Your task to perform on an android device: turn off priority inbox in the gmail app Image 0: 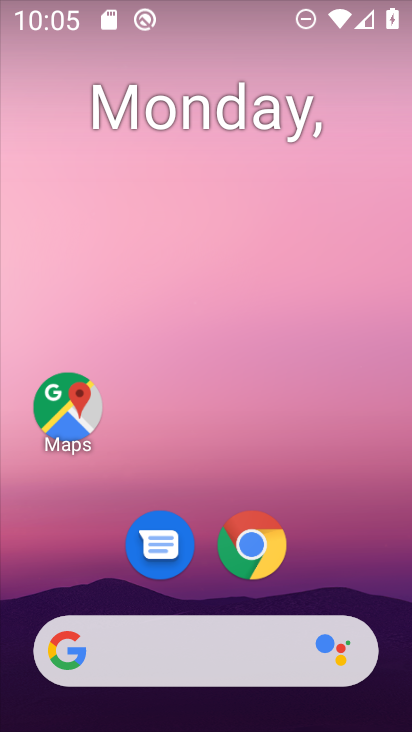
Step 0: drag from (6, 699) to (258, 253)
Your task to perform on an android device: turn off priority inbox in the gmail app Image 1: 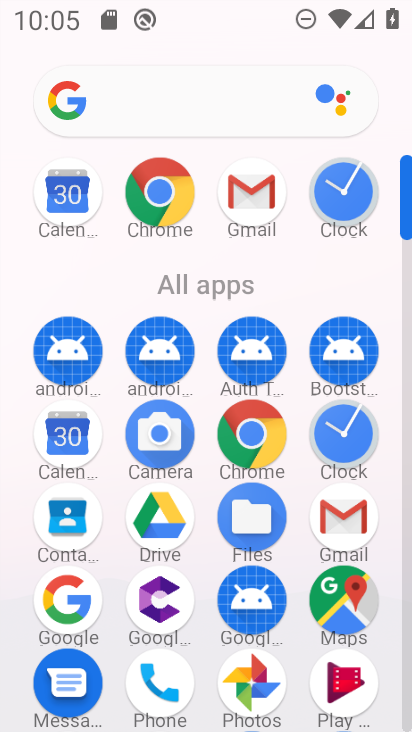
Step 1: drag from (27, 465) to (199, 197)
Your task to perform on an android device: turn off priority inbox in the gmail app Image 2: 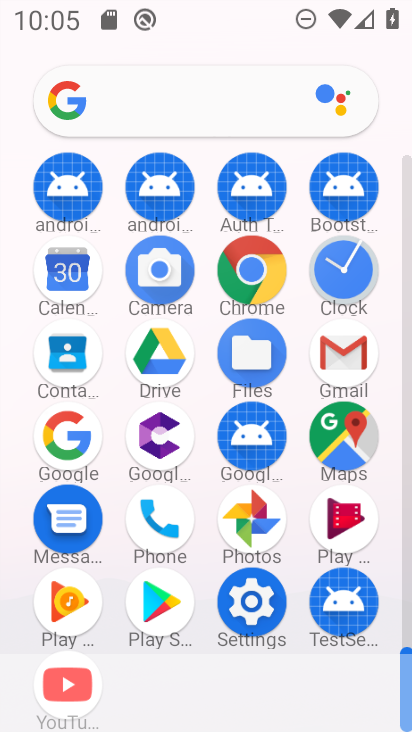
Step 2: click (247, 676)
Your task to perform on an android device: turn off priority inbox in the gmail app Image 3: 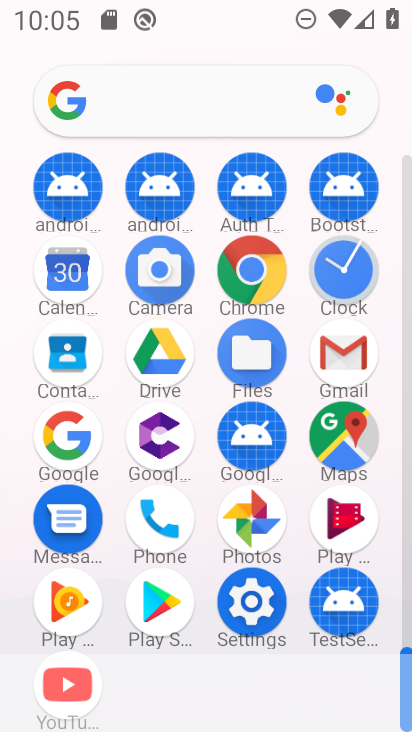
Step 3: click (354, 352)
Your task to perform on an android device: turn off priority inbox in the gmail app Image 4: 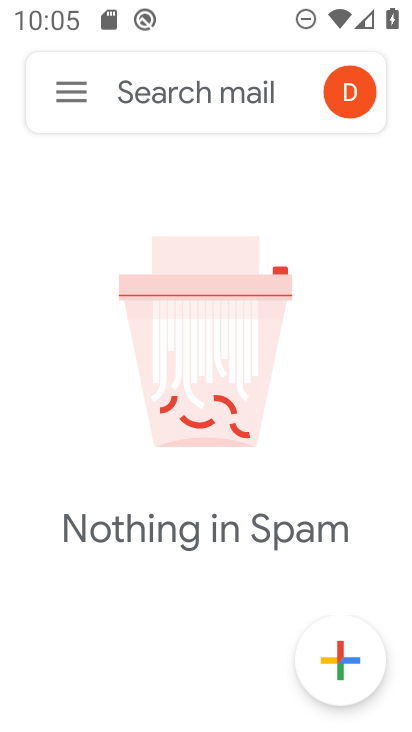
Step 4: press back button
Your task to perform on an android device: turn off priority inbox in the gmail app Image 5: 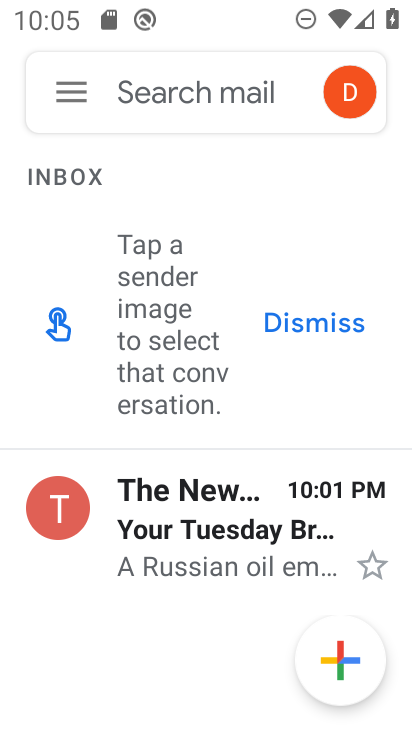
Step 5: click (67, 97)
Your task to perform on an android device: turn off priority inbox in the gmail app Image 6: 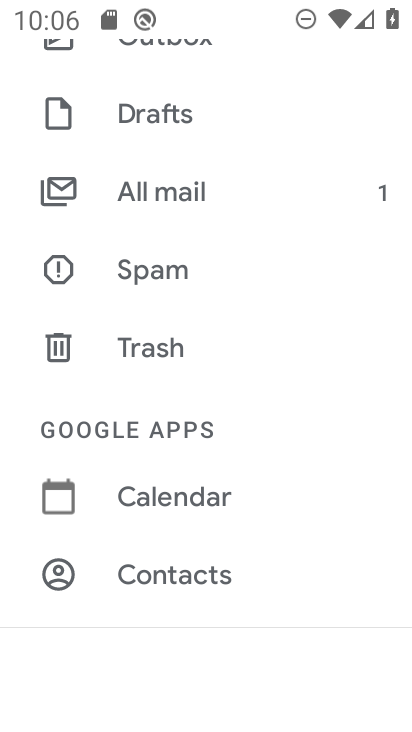
Step 6: drag from (83, 592) to (369, 76)
Your task to perform on an android device: turn off priority inbox in the gmail app Image 7: 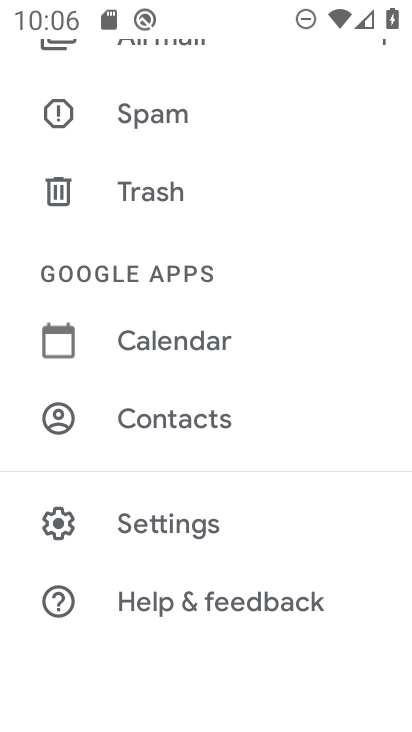
Step 7: click (173, 534)
Your task to perform on an android device: turn off priority inbox in the gmail app Image 8: 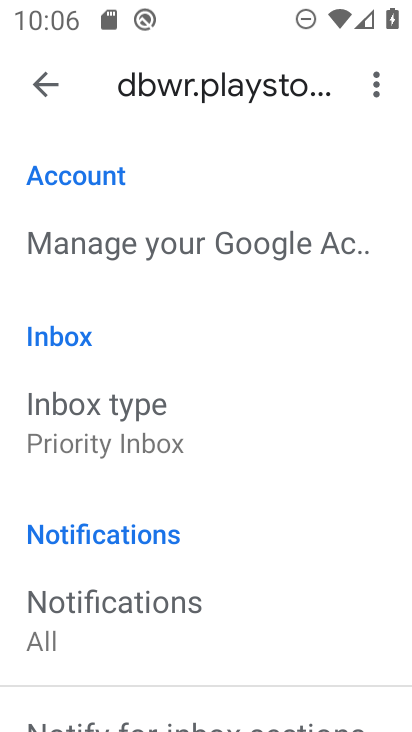
Step 8: click (175, 437)
Your task to perform on an android device: turn off priority inbox in the gmail app Image 9: 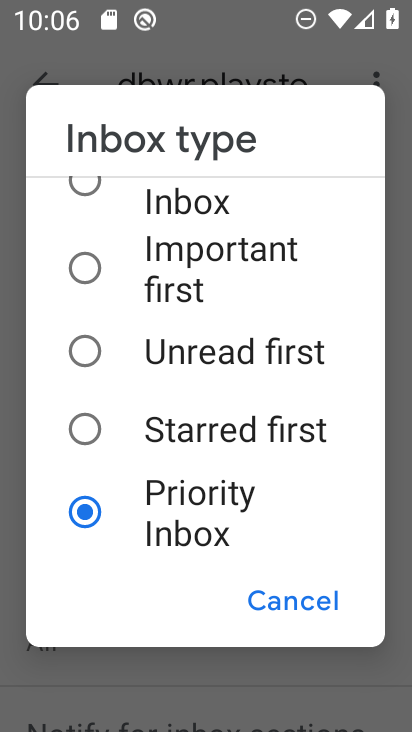
Step 9: drag from (104, 229) to (92, 591)
Your task to perform on an android device: turn off priority inbox in the gmail app Image 10: 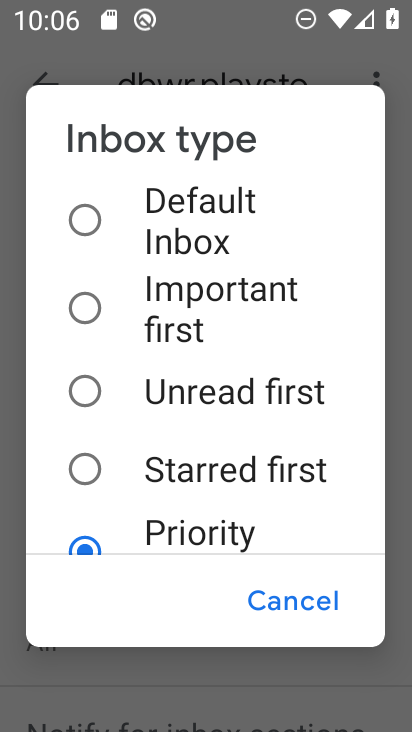
Step 10: click (71, 216)
Your task to perform on an android device: turn off priority inbox in the gmail app Image 11: 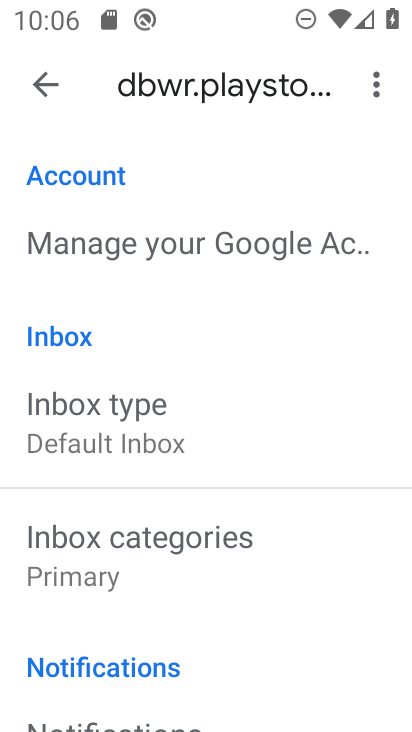
Step 11: task complete